Your task to perform on an android device: allow cookies in the chrome app Image 0: 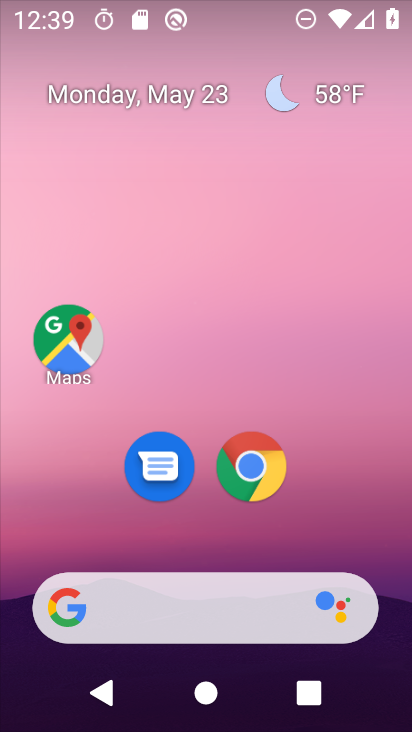
Step 0: click (259, 458)
Your task to perform on an android device: allow cookies in the chrome app Image 1: 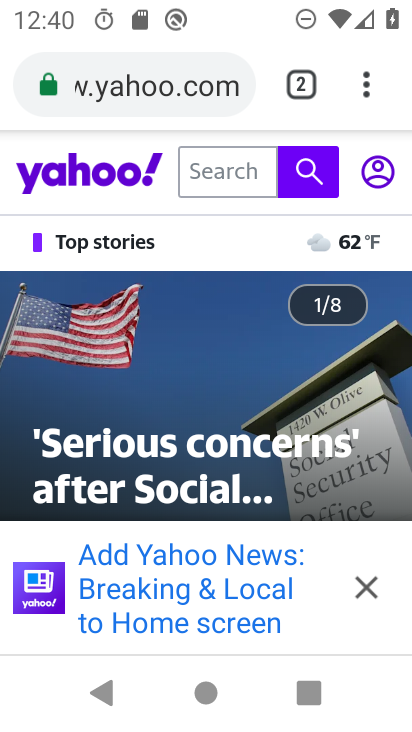
Step 1: click (357, 85)
Your task to perform on an android device: allow cookies in the chrome app Image 2: 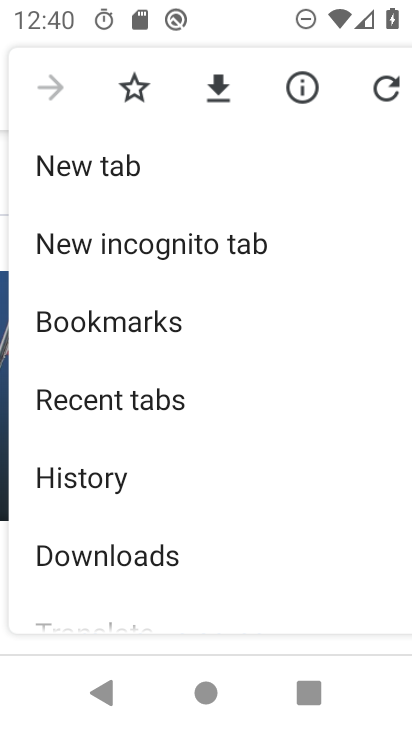
Step 2: drag from (239, 504) to (240, 174)
Your task to perform on an android device: allow cookies in the chrome app Image 3: 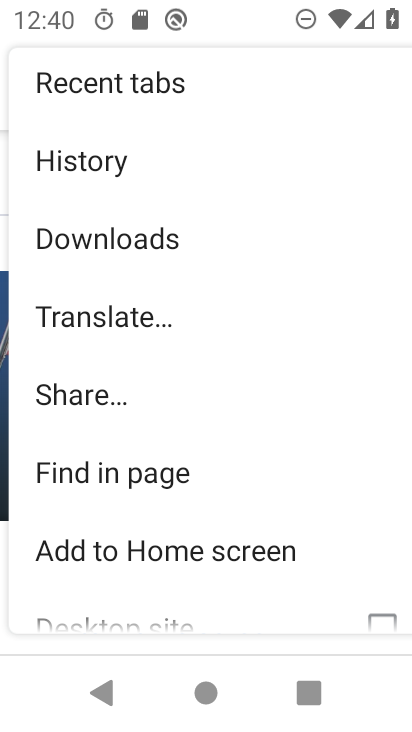
Step 3: drag from (165, 456) to (189, 283)
Your task to perform on an android device: allow cookies in the chrome app Image 4: 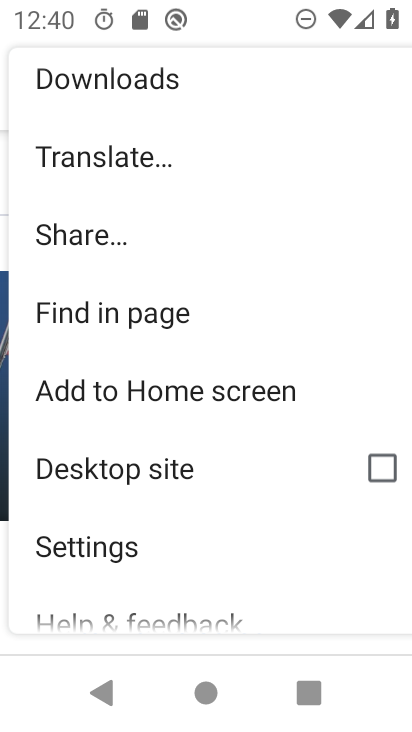
Step 4: click (127, 558)
Your task to perform on an android device: allow cookies in the chrome app Image 5: 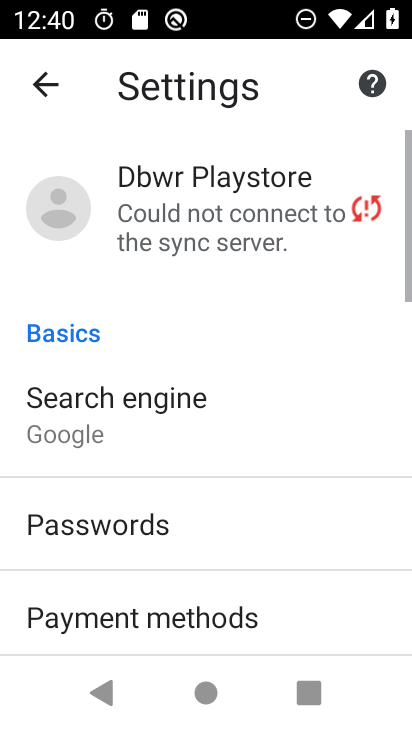
Step 5: drag from (229, 540) to (232, 178)
Your task to perform on an android device: allow cookies in the chrome app Image 6: 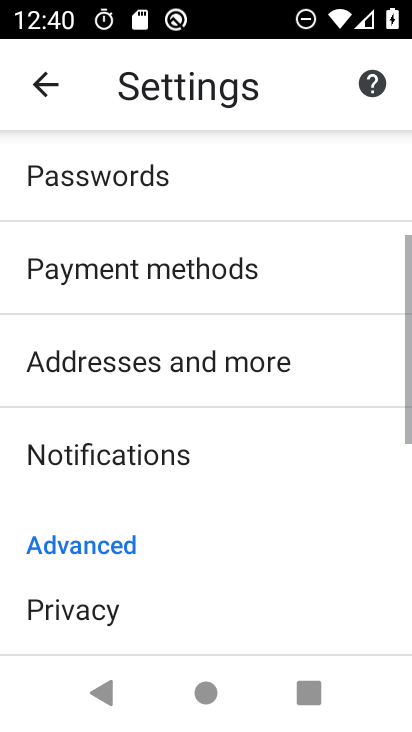
Step 6: drag from (201, 589) to (225, 269)
Your task to perform on an android device: allow cookies in the chrome app Image 7: 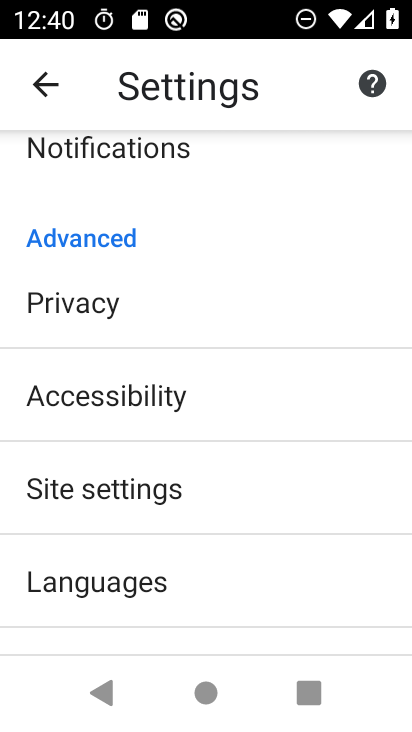
Step 7: click (134, 472)
Your task to perform on an android device: allow cookies in the chrome app Image 8: 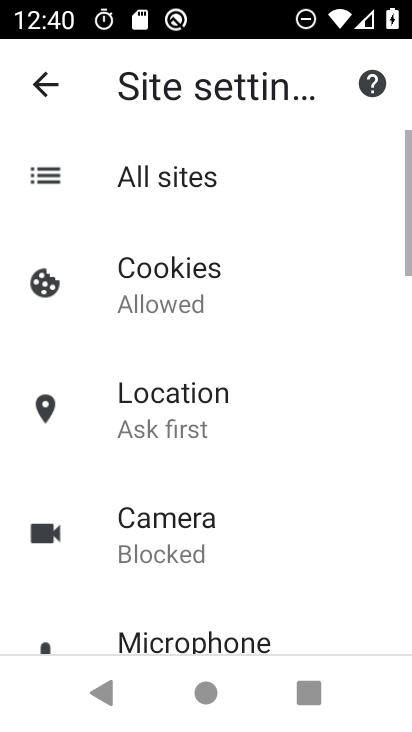
Step 8: click (171, 292)
Your task to perform on an android device: allow cookies in the chrome app Image 9: 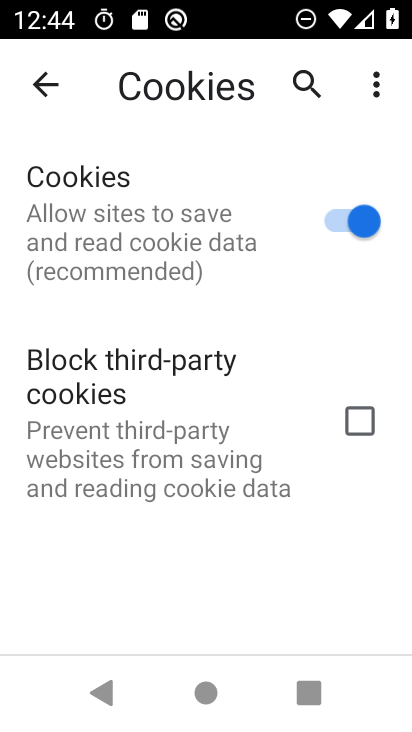
Step 9: task complete